Your task to perform on an android device: open app "Viber Messenger" (install if not already installed) Image 0: 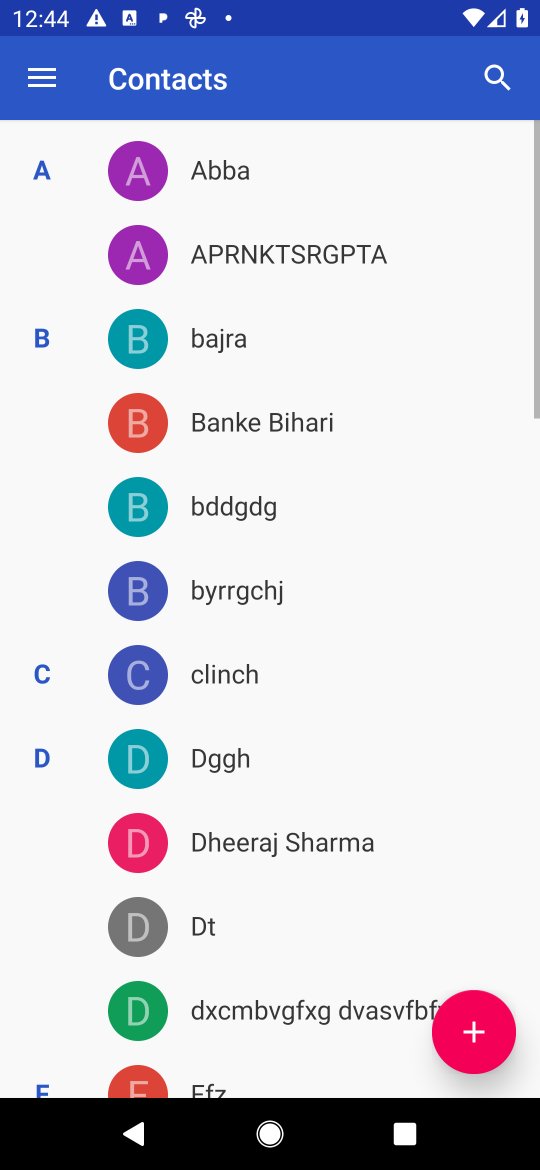
Step 0: press home button
Your task to perform on an android device: open app "Viber Messenger" (install if not already installed) Image 1: 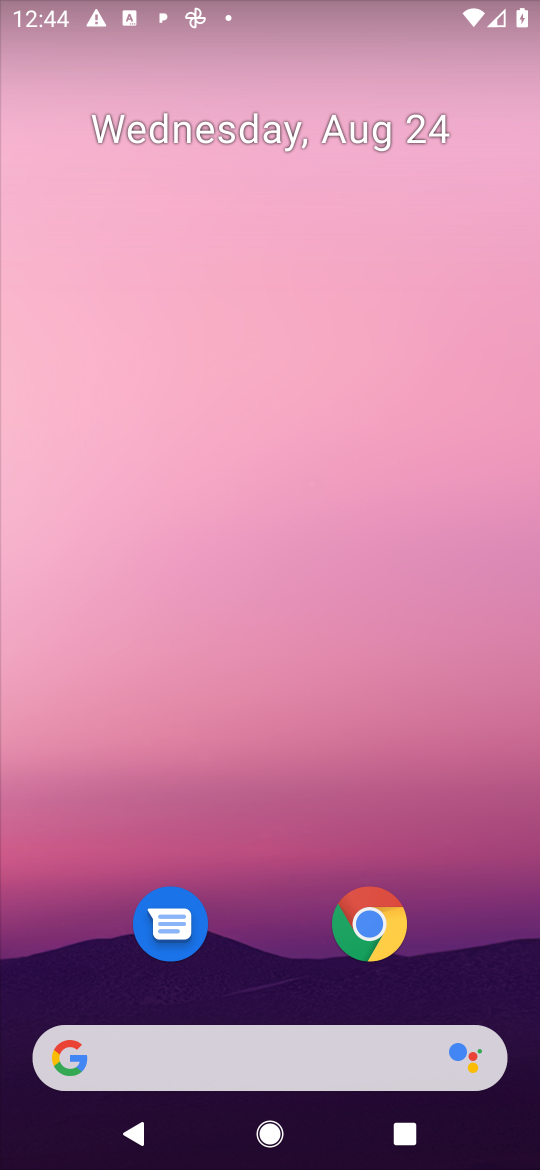
Step 1: drag from (480, 953) to (485, 179)
Your task to perform on an android device: open app "Viber Messenger" (install if not already installed) Image 2: 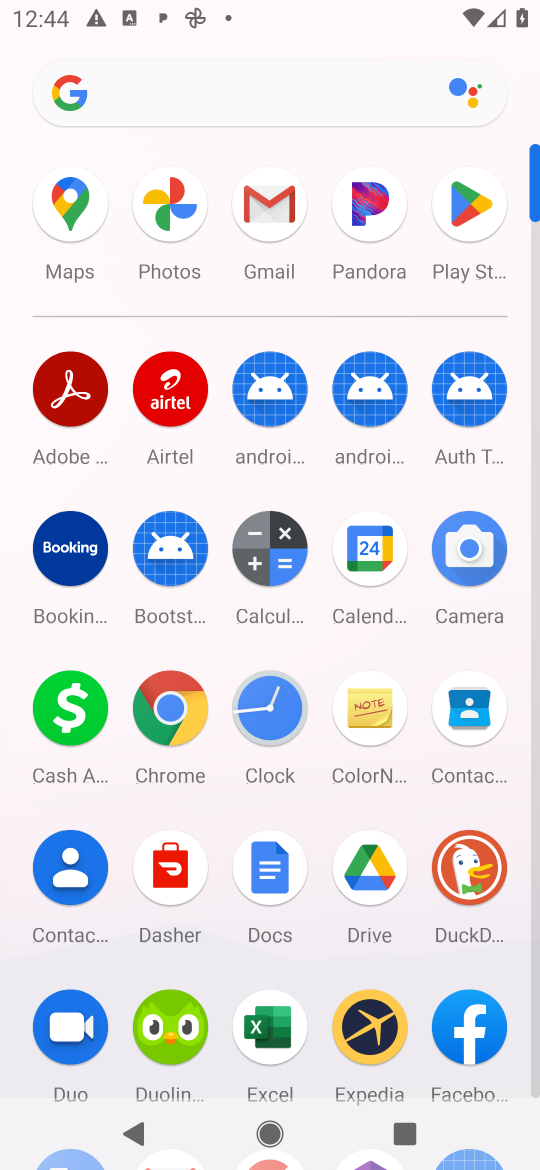
Step 2: click (467, 208)
Your task to perform on an android device: open app "Viber Messenger" (install if not already installed) Image 3: 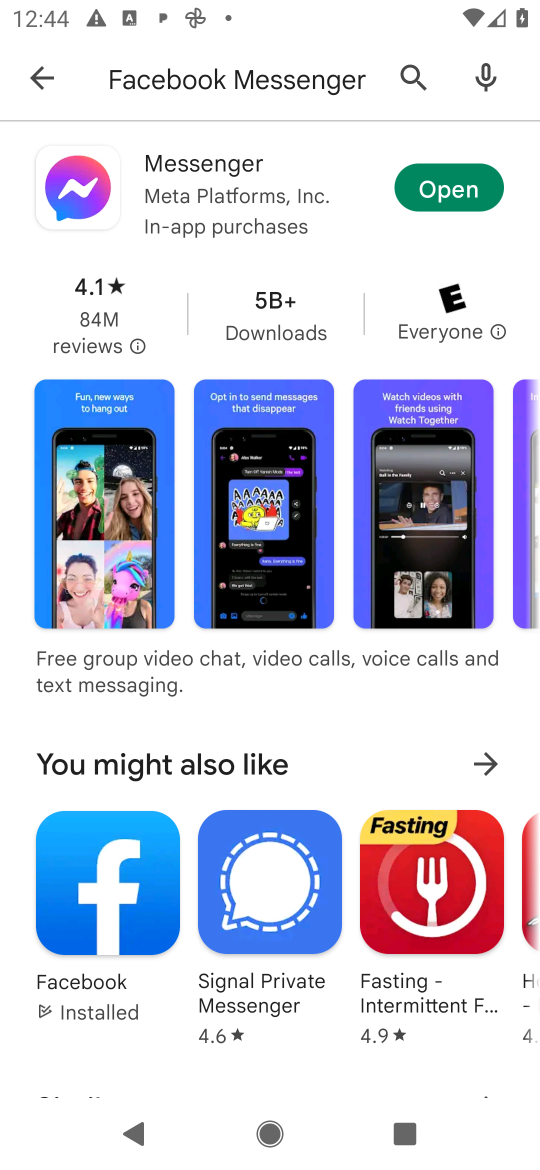
Step 3: press back button
Your task to perform on an android device: open app "Viber Messenger" (install if not already installed) Image 4: 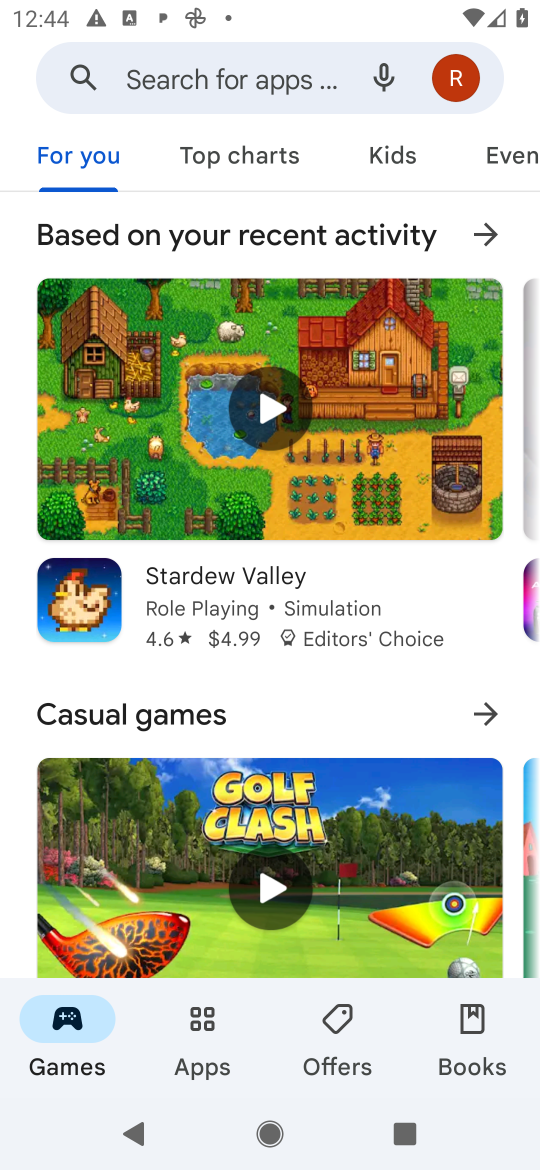
Step 4: click (311, 92)
Your task to perform on an android device: open app "Viber Messenger" (install if not already installed) Image 5: 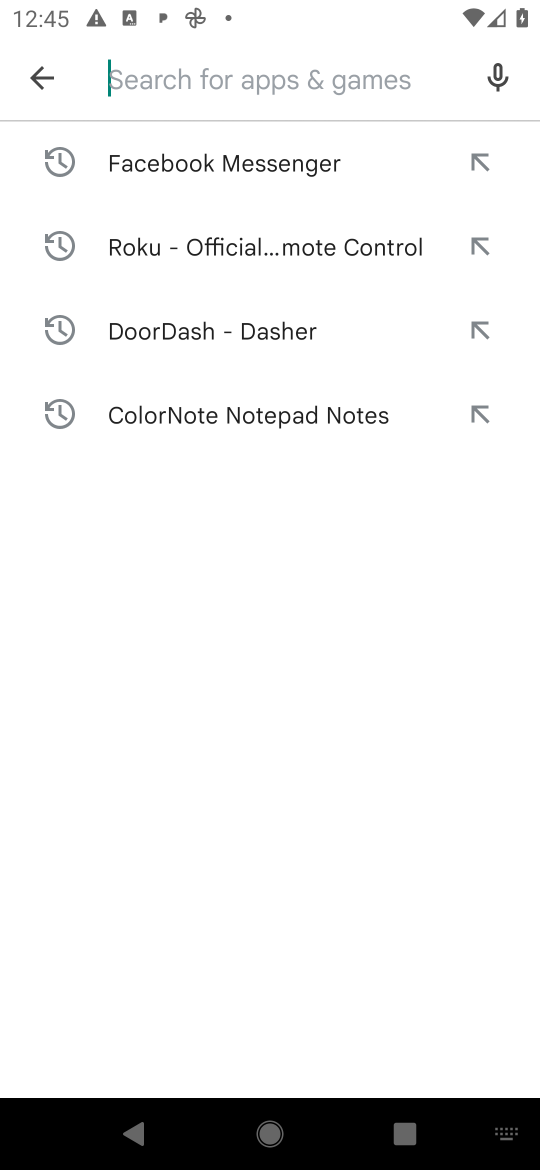
Step 5: type "Viber Messenger"
Your task to perform on an android device: open app "Viber Messenger" (install if not already installed) Image 6: 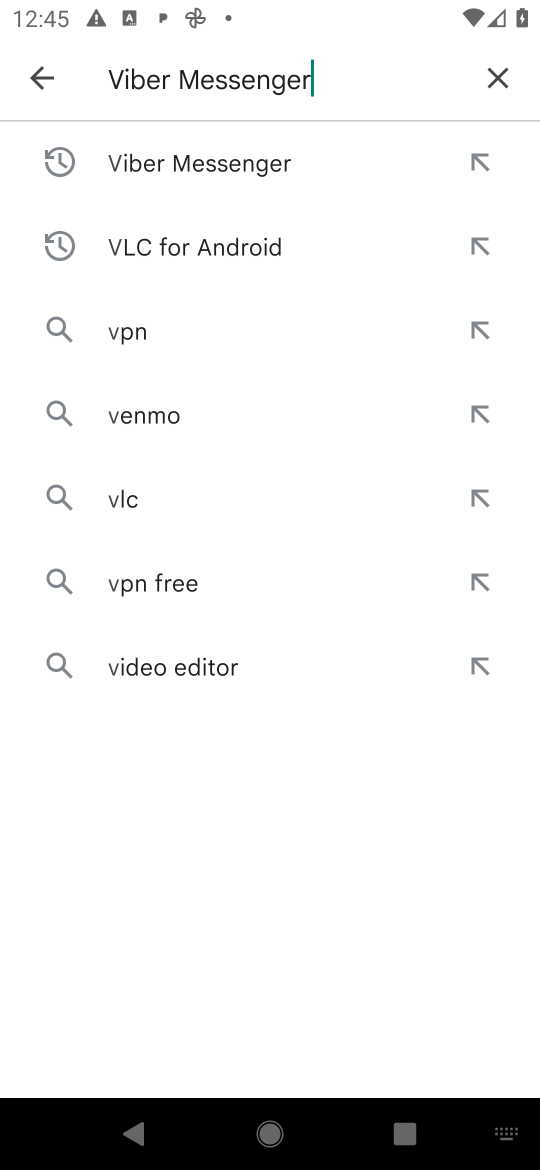
Step 6: press enter
Your task to perform on an android device: open app "Viber Messenger" (install if not already installed) Image 7: 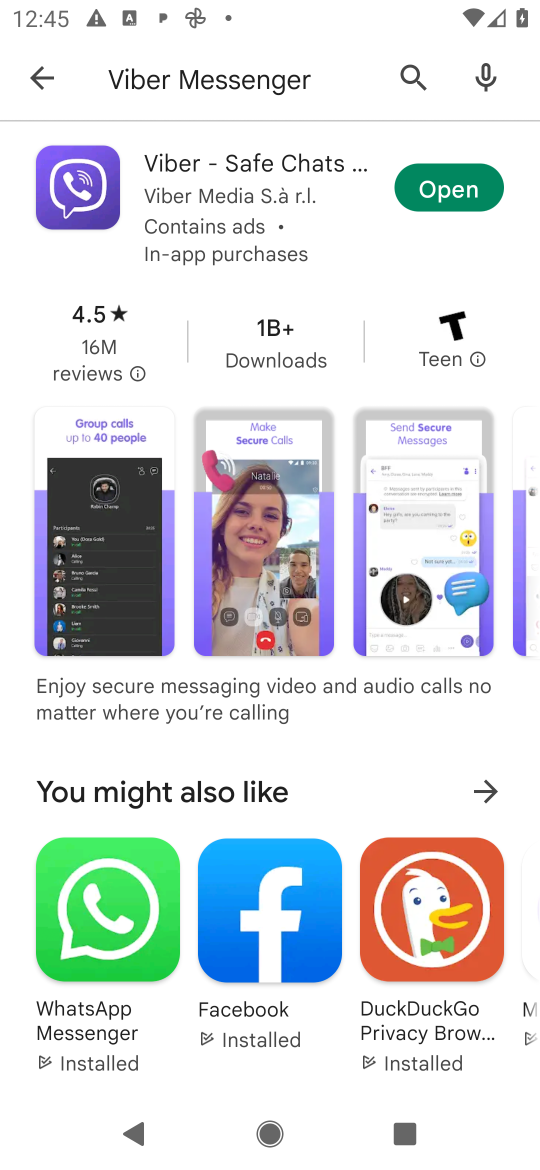
Step 7: click (468, 193)
Your task to perform on an android device: open app "Viber Messenger" (install if not already installed) Image 8: 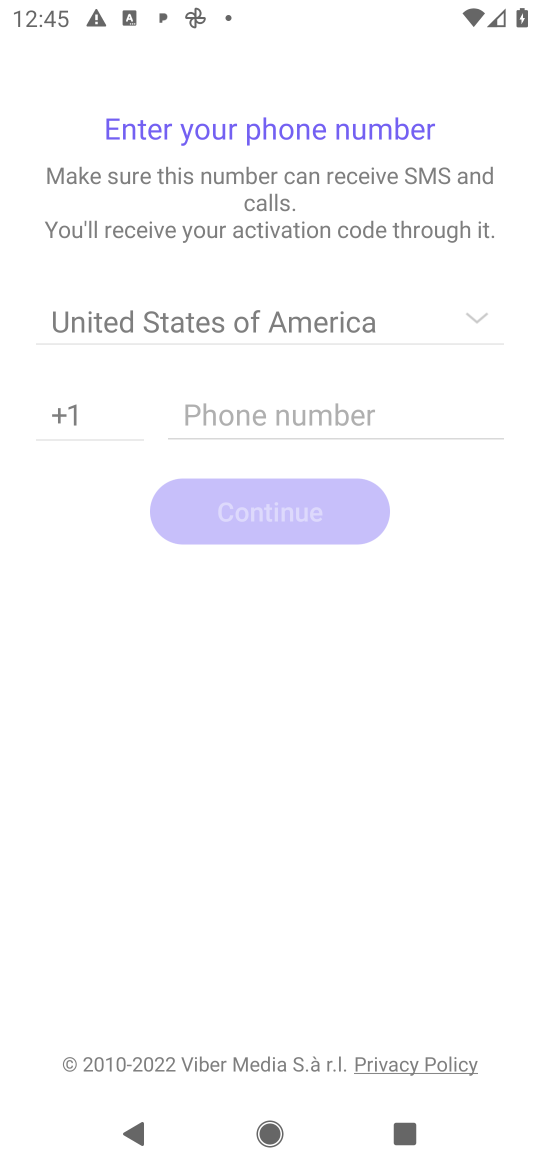
Step 8: task complete